Your task to perform on an android device: Is it going to rain tomorrow? Image 0: 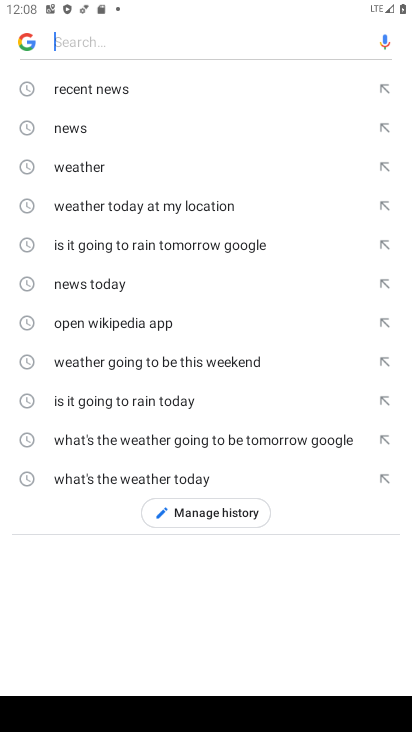
Step 0: type "is it going to rain tomorrow"
Your task to perform on an android device: Is it going to rain tomorrow? Image 1: 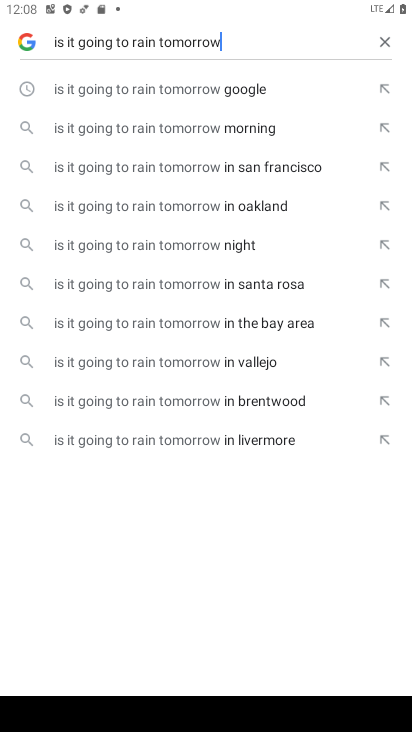
Step 1: click (240, 87)
Your task to perform on an android device: Is it going to rain tomorrow? Image 2: 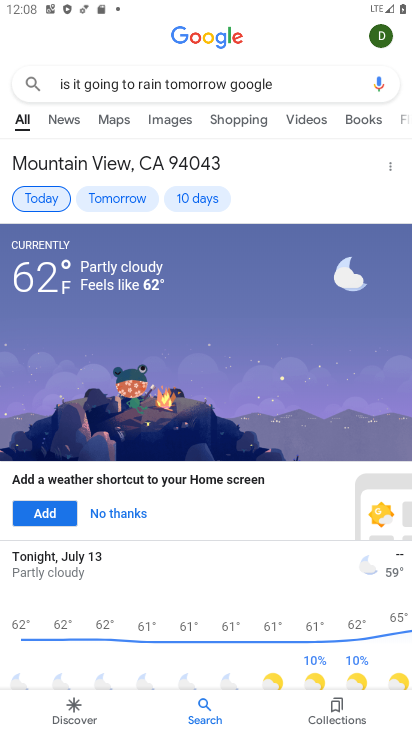
Step 2: task complete